Your task to perform on an android device: Open Google Image 0: 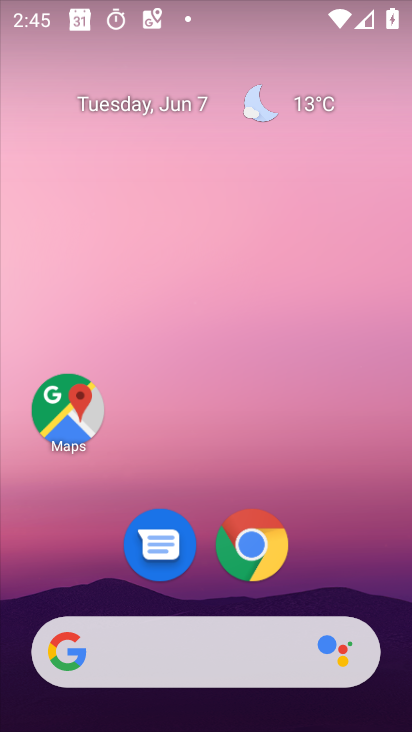
Step 0: drag from (364, 462) to (230, 3)
Your task to perform on an android device: Open Google Image 1: 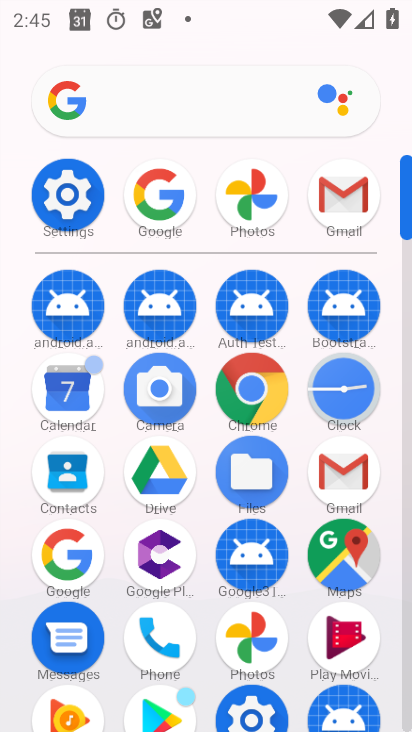
Step 1: click (64, 564)
Your task to perform on an android device: Open Google Image 2: 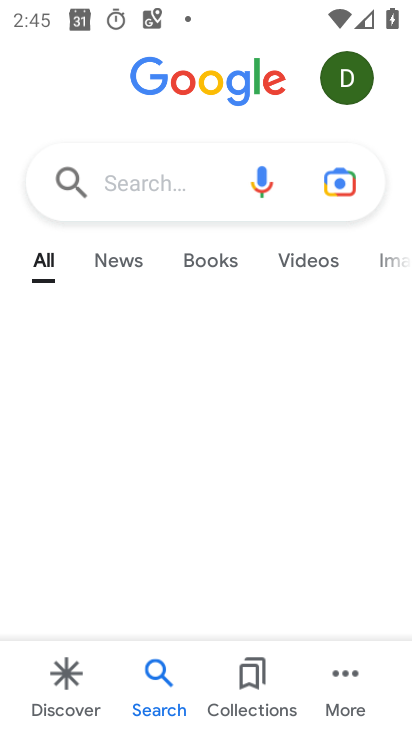
Step 2: task complete